Your task to perform on an android device: change the clock display to analog Image 0: 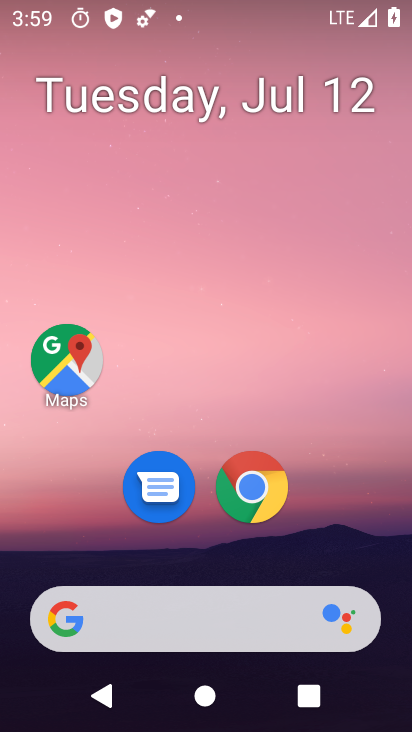
Step 0: press home button
Your task to perform on an android device: change the clock display to analog Image 1: 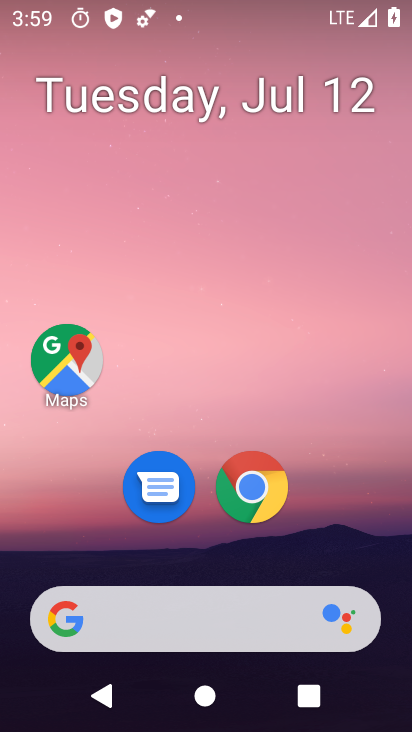
Step 1: drag from (271, 653) to (270, 70)
Your task to perform on an android device: change the clock display to analog Image 2: 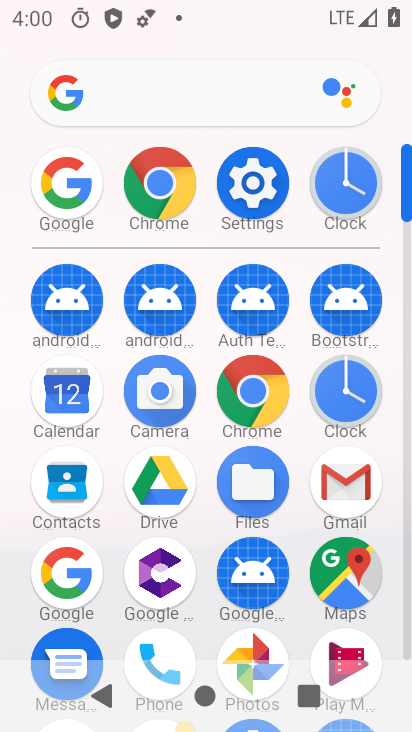
Step 2: click (358, 421)
Your task to perform on an android device: change the clock display to analog Image 3: 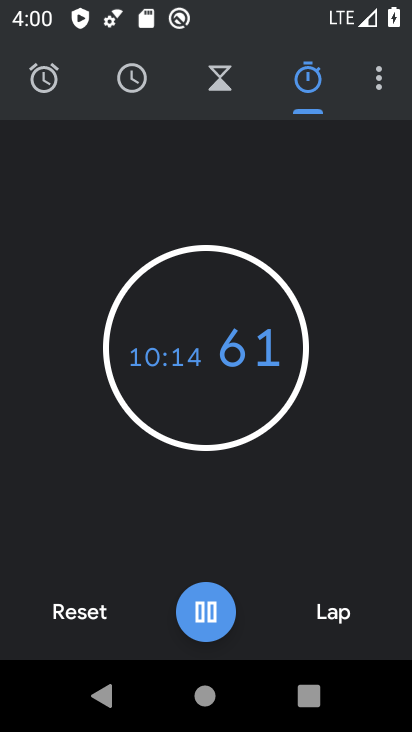
Step 3: click (382, 88)
Your task to perform on an android device: change the clock display to analog Image 4: 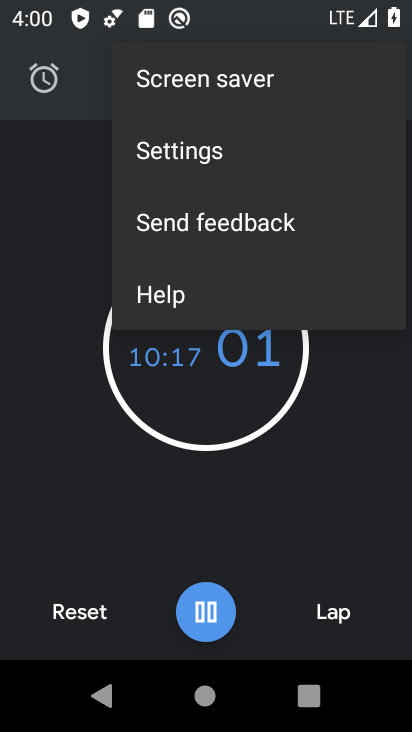
Step 4: click (199, 159)
Your task to perform on an android device: change the clock display to analog Image 5: 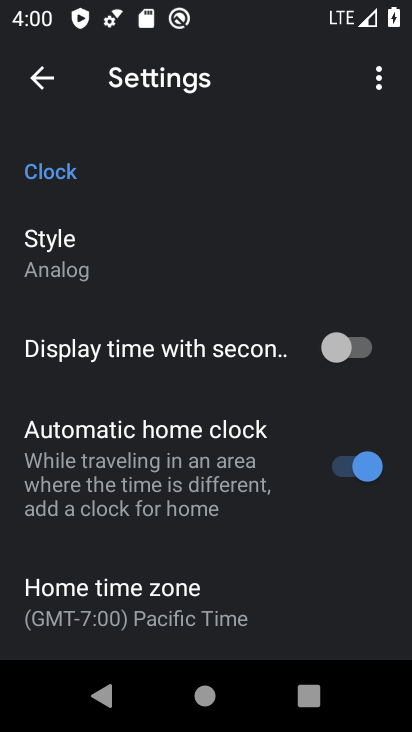
Step 5: click (109, 279)
Your task to perform on an android device: change the clock display to analog Image 6: 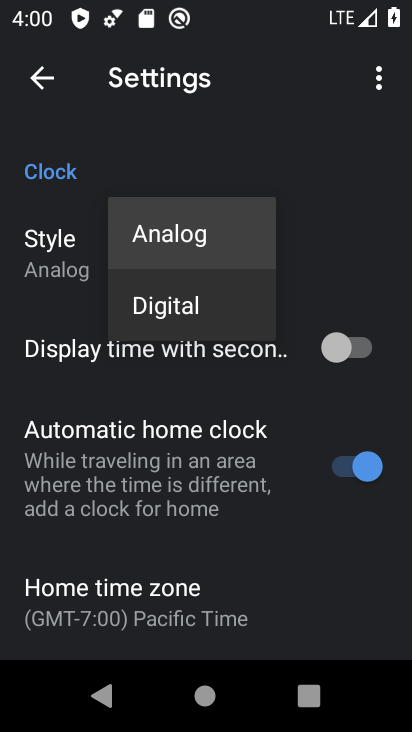
Step 6: task complete